Your task to perform on an android device: turn off location history Image 0: 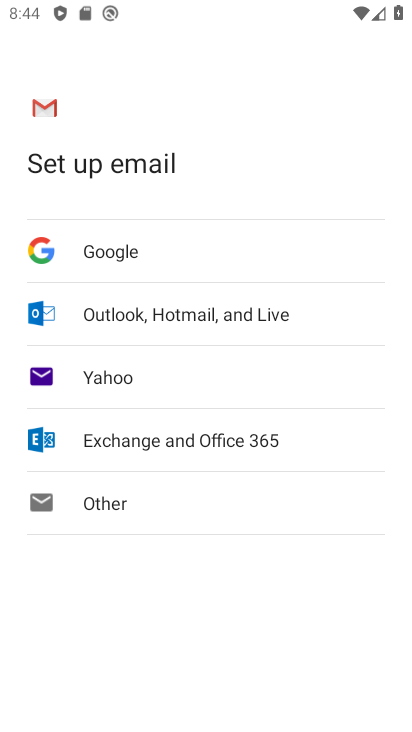
Step 0: press home button
Your task to perform on an android device: turn off location history Image 1: 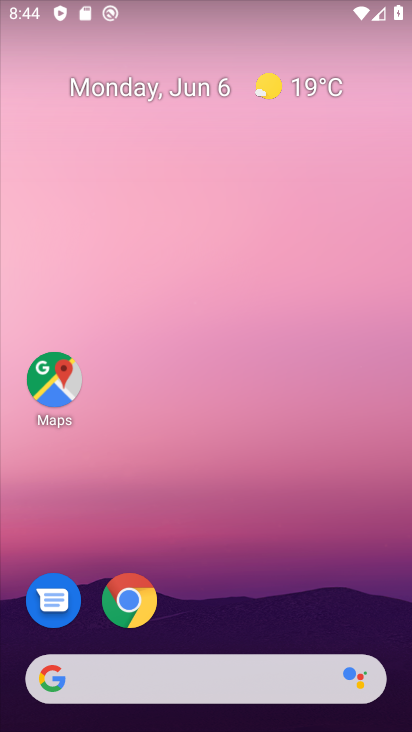
Step 1: drag from (297, 558) to (165, 36)
Your task to perform on an android device: turn off location history Image 2: 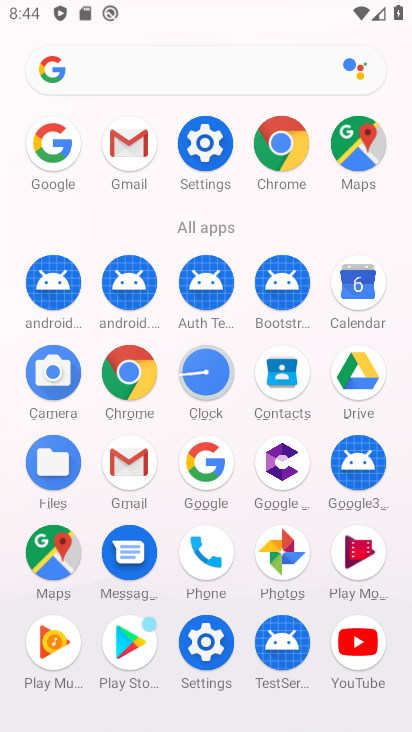
Step 2: click (208, 161)
Your task to perform on an android device: turn off location history Image 3: 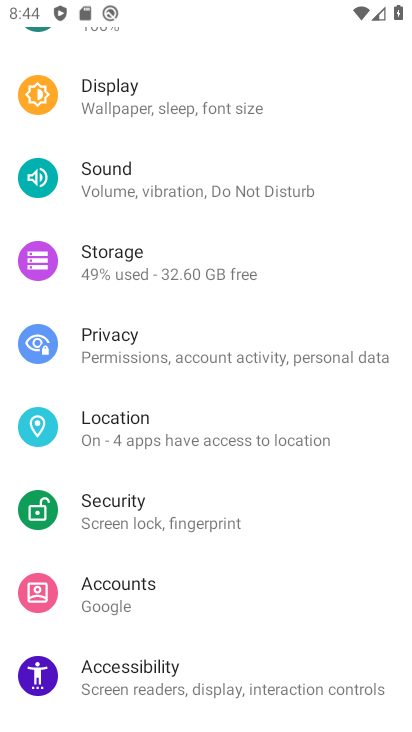
Step 3: click (192, 430)
Your task to perform on an android device: turn off location history Image 4: 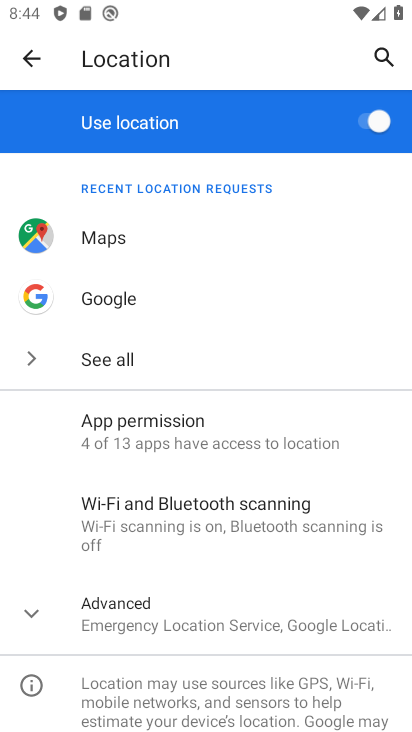
Step 4: drag from (221, 645) to (238, 225)
Your task to perform on an android device: turn off location history Image 5: 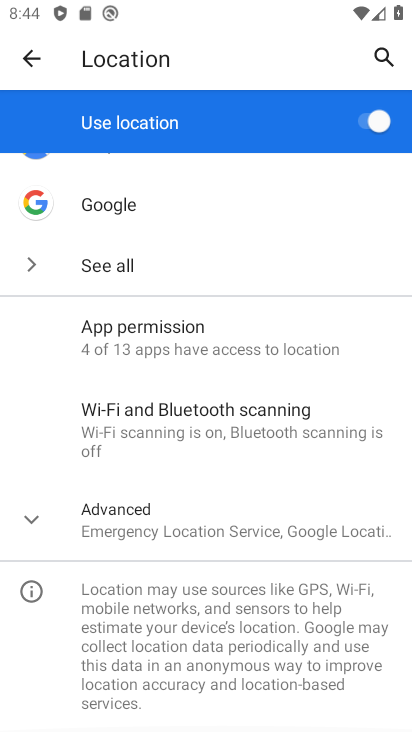
Step 5: click (193, 505)
Your task to perform on an android device: turn off location history Image 6: 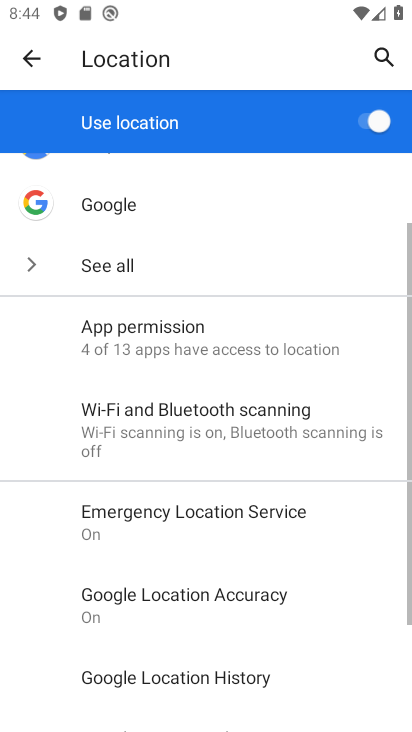
Step 6: drag from (183, 620) to (261, 173)
Your task to perform on an android device: turn off location history Image 7: 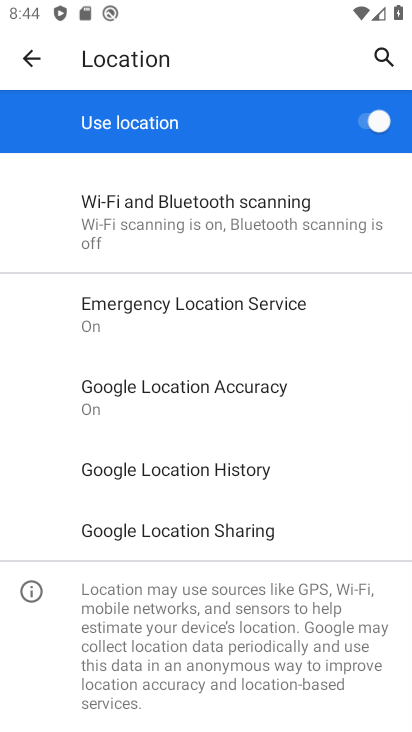
Step 7: click (183, 477)
Your task to perform on an android device: turn off location history Image 8: 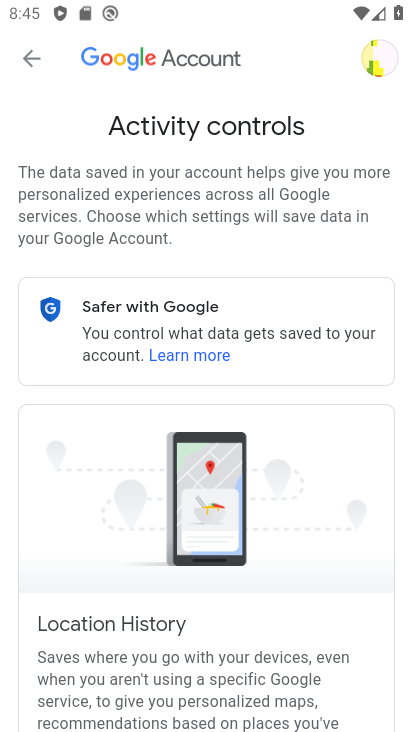
Step 8: drag from (266, 590) to (265, 148)
Your task to perform on an android device: turn off location history Image 9: 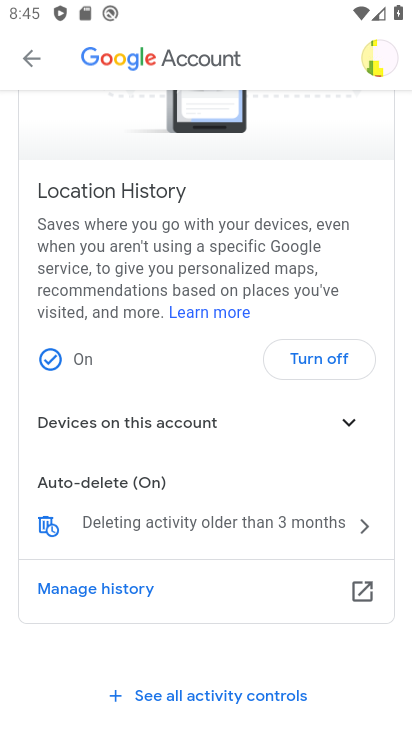
Step 9: click (322, 354)
Your task to perform on an android device: turn off location history Image 10: 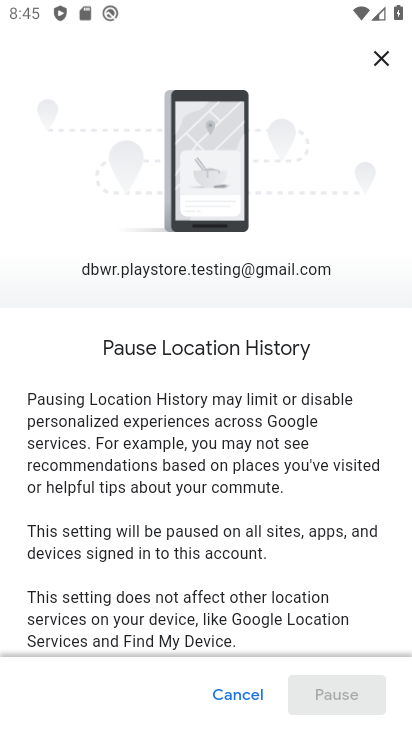
Step 10: drag from (301, 621) to (222, 87)
Your task to perform on an android device: turn off location history Image 11: 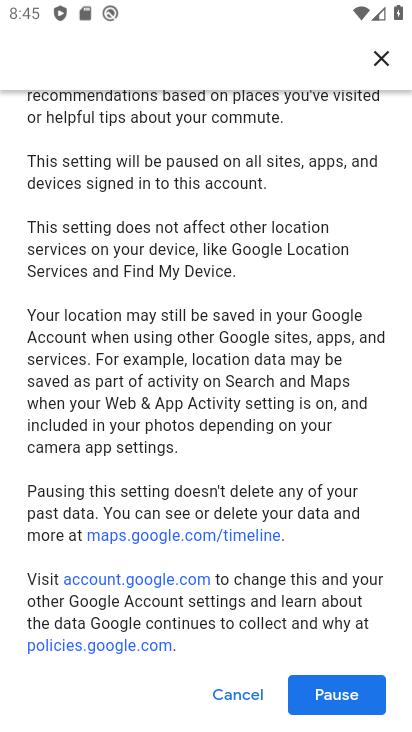
Step 11: click (348, 686)
Your task to perform on an android device: turn off location history Image 12: 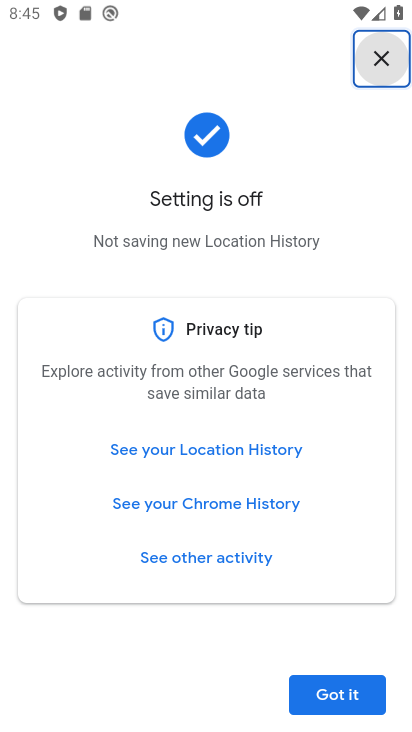
Step 12: click (357, 705)
Your task to perform on an android device: turn off location history Image 13: 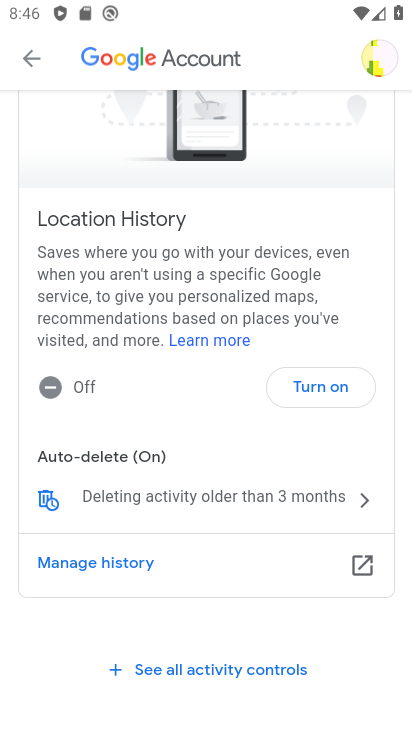
Step 13: task complete